Your task to perform on an android device: change the upload size in google photos Image 0: 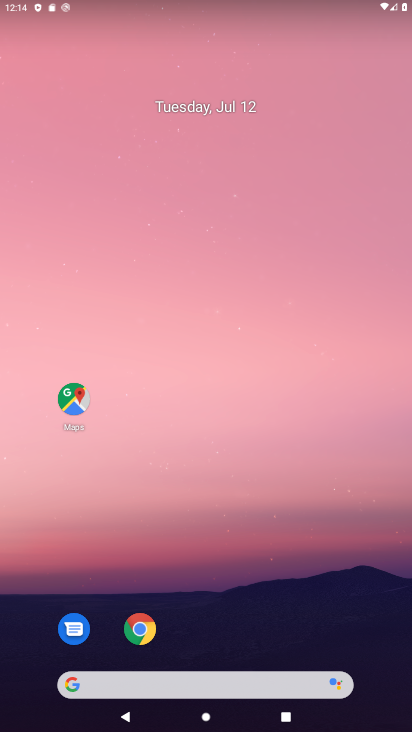
Step 0: drag from (170, 688) to (130, 107)
Your task to perform on an android device: change the upload size in google photos Image 1: 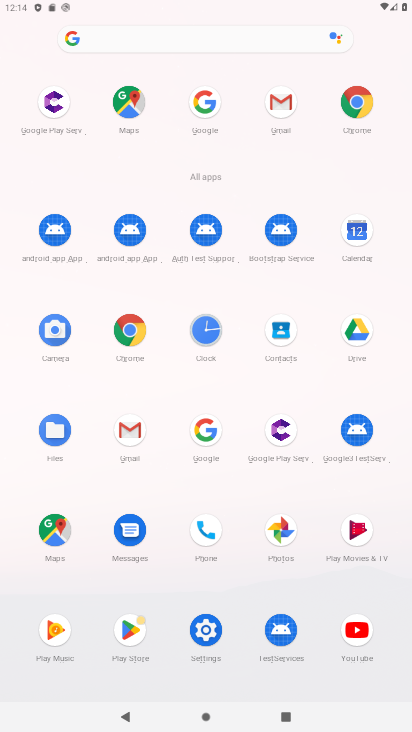
Step 1: click (288, 533)
Your task to perform on an android device: change the upload size in google photos Image 2: 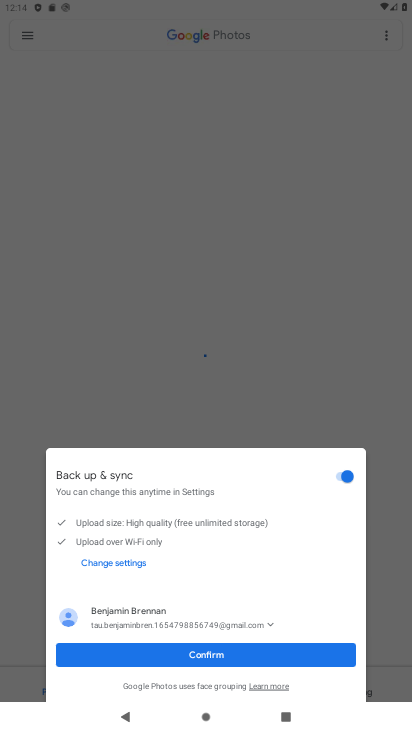
Step 2: click (243, 657)
Your task to perform on an android device: change the upload size in google photos Image 3: 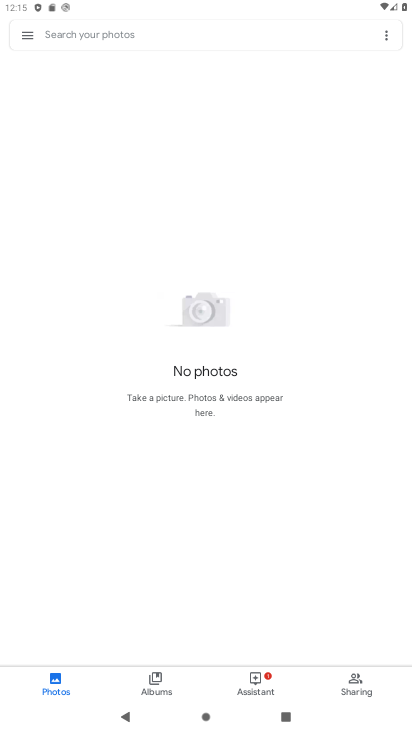
Step 3: click (23, 31)
Your task to perform on an android device: change the upload size in google photos Image 4: 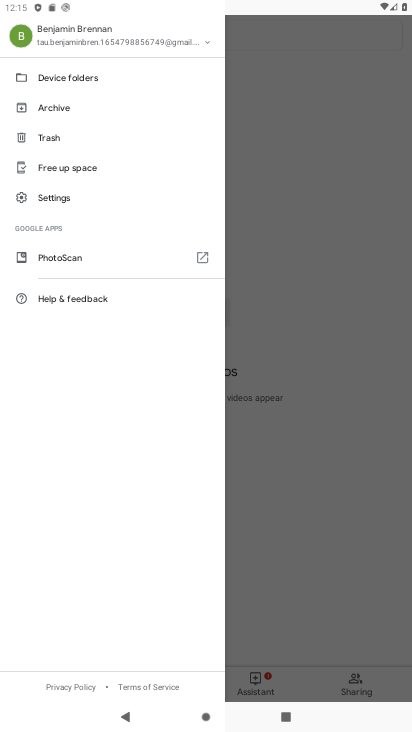
Step 4: click (70, 193)
Your task to perform on an android device: change the upload size in google photos Image 5: 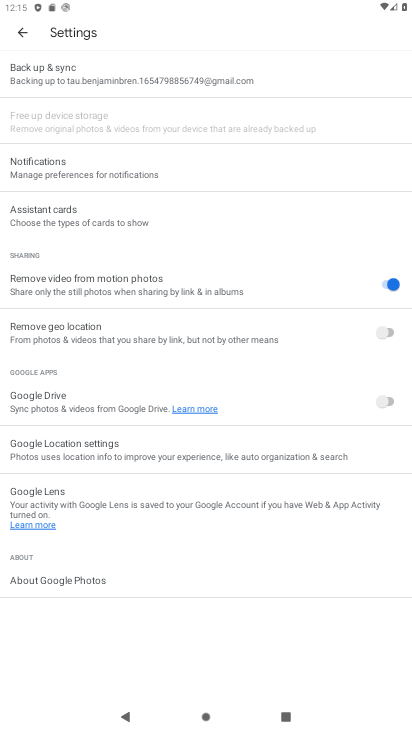
Step 5: click (58, 80)
Your task to perform on an android device: change the upload size in google photos Image 6: 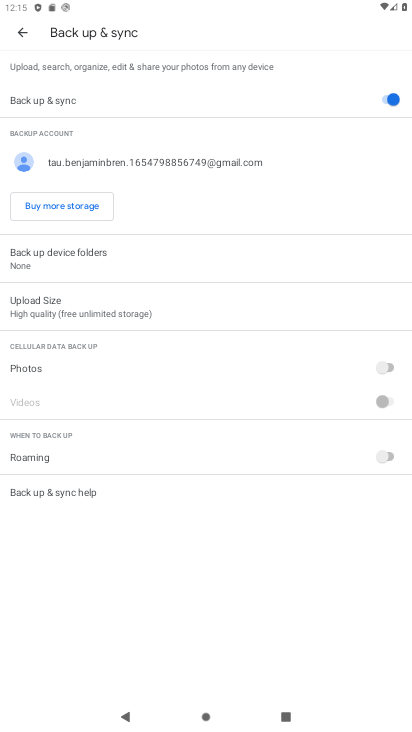
Step 6: click (60, 306)
Your task to perform on an android device: change the upload size in google photos Image 7: 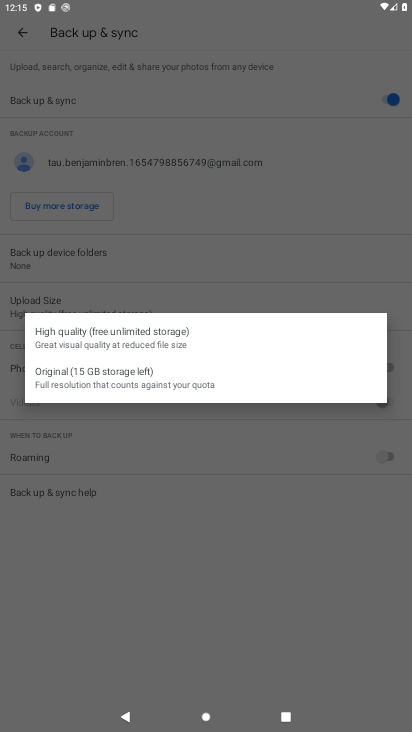
Step 7: click (94, 380)
Your task to perform on an android device: change the upload size in google photos Image 8: 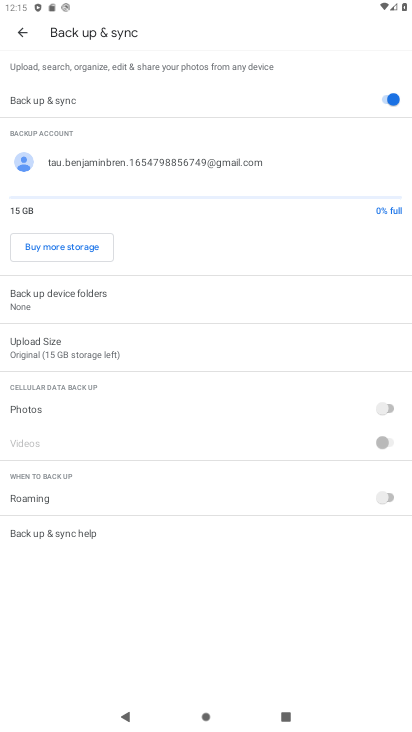
Step 8: task complete